Your task to perform on an android device: move an email to a new category in the gmail app Image 0: 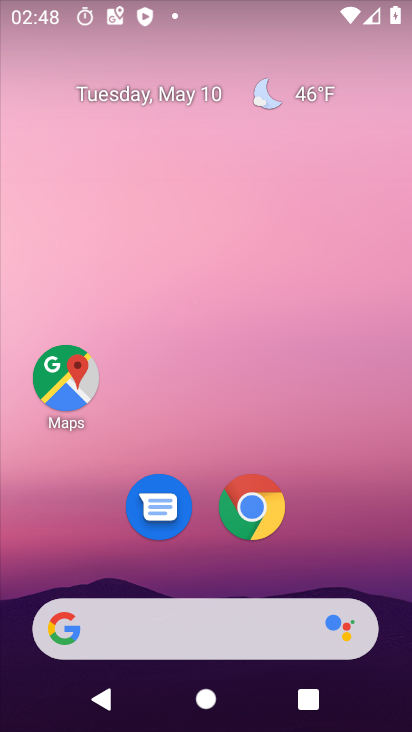
Step 0: drag from (248, 657) to (385, 173)
Your task to perform on an android device: move an email to a new category in the gmail app Image 1: 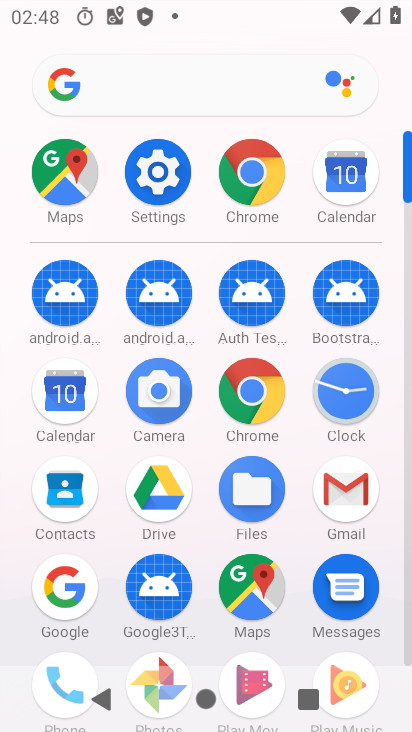
Step 1: click (353, 468)
Your task to perform on an android device: move an email to a new category in the gmail app Image 2: 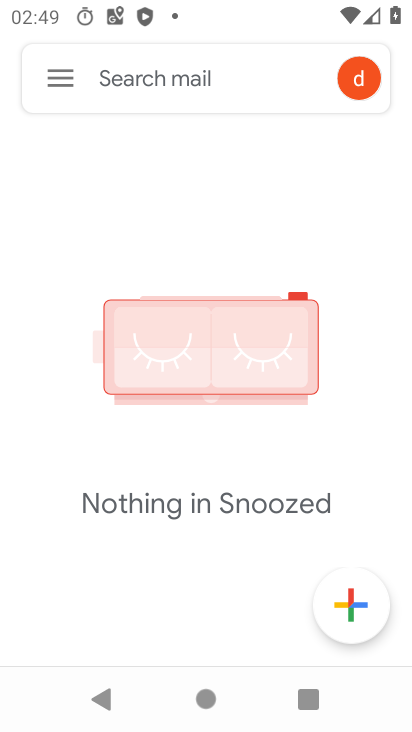
Step 2: click (64, 78)
Your task to perform on an android device: move an email to a new category in the gmail app Image 3: 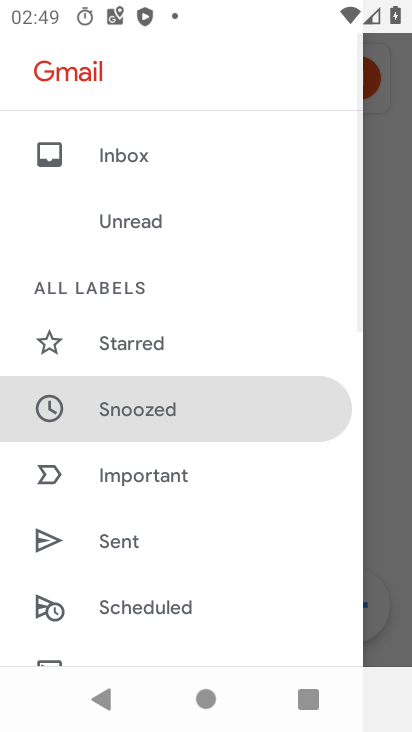
Step 3: drag from (124, 457) to (279, 213)
Your task to perform on an android device: move an email to a new category in the gmail app Image 4: 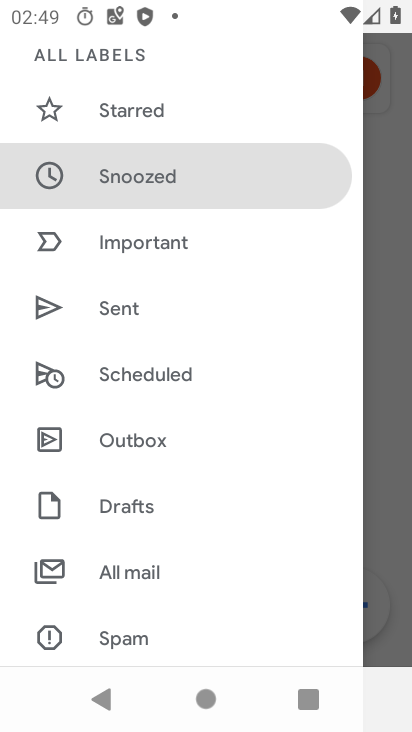
Step 4: drag from (185, 555) to (310, 247)
Your task to perform on an android device: move an email to a new category in the gmail app Image 5: 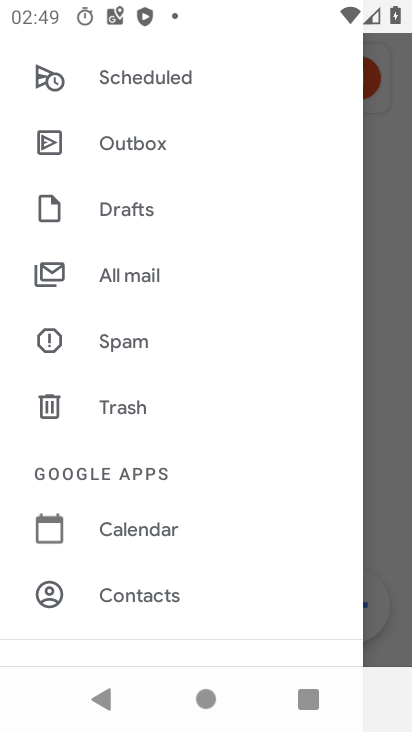
Step 5: drag from (131, 558) to (208, 395)
Your task to perform on an android device: move an email to a new category in the gmail app Image 6: 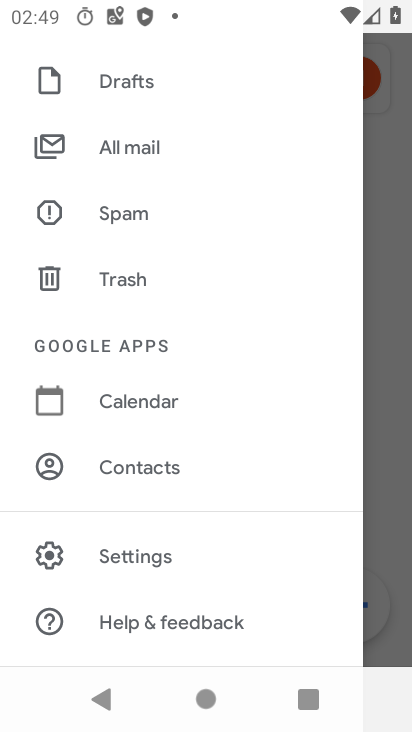
Step 6: click (131, 563)
Your task to perform on an android device: move an email to a new category in the gmail app Image 7: 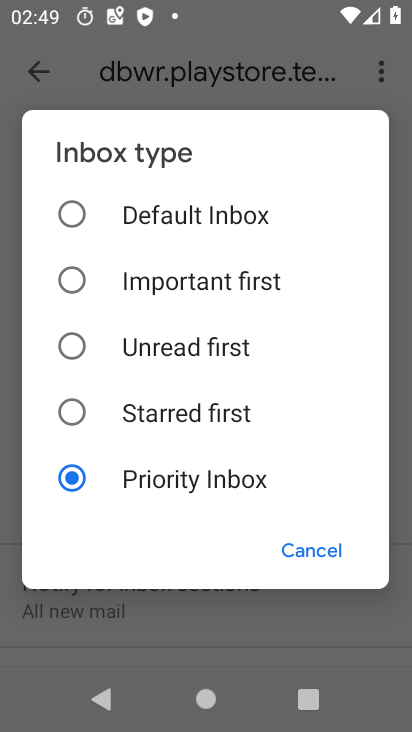
Step 7: click (124, 201)
Your task to perform on an android device: move an email to a new category in the gmail app Image 8: 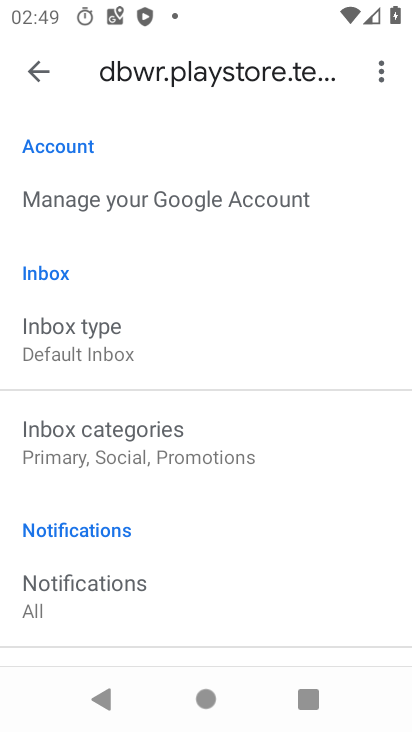
Step 8: click (111, 445)
Your task to perform on an android device: move an email to a new category in the gmail app Image 9: 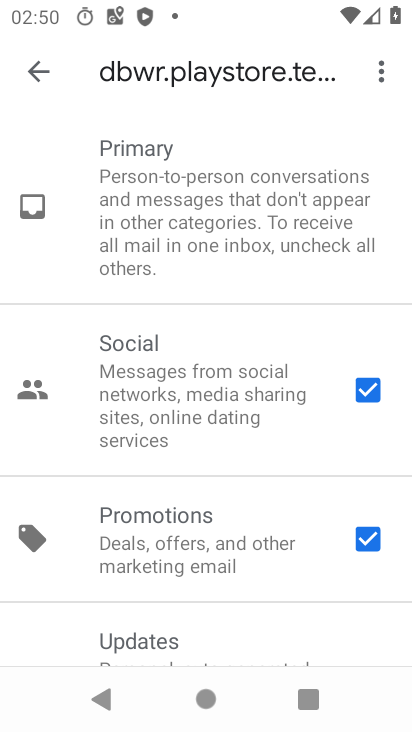
Step 9: task complete